Your task to perform on an android device: turn on bluetooth scan Image 0: 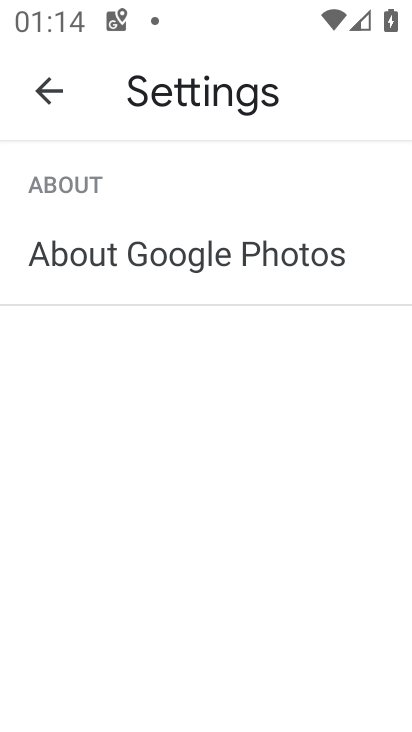
Step 0: press home button
Your task to perform on an android device: turn on bluetooth scan Image 1: 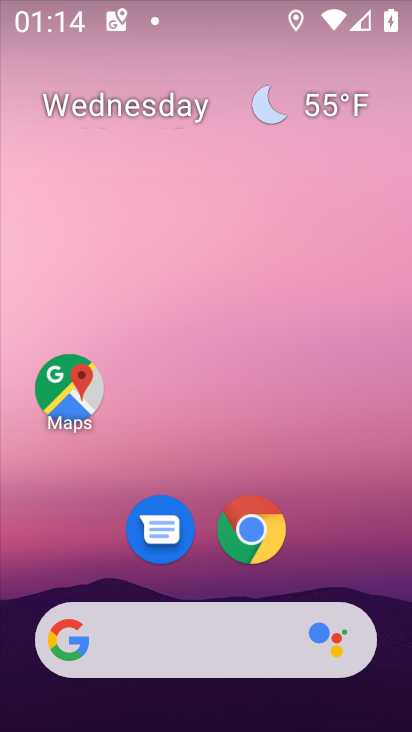
Step 1: drag from (218, 725) to (227, 214)
Your task to perform on an android device: turn on bluetooth scan Image 2: 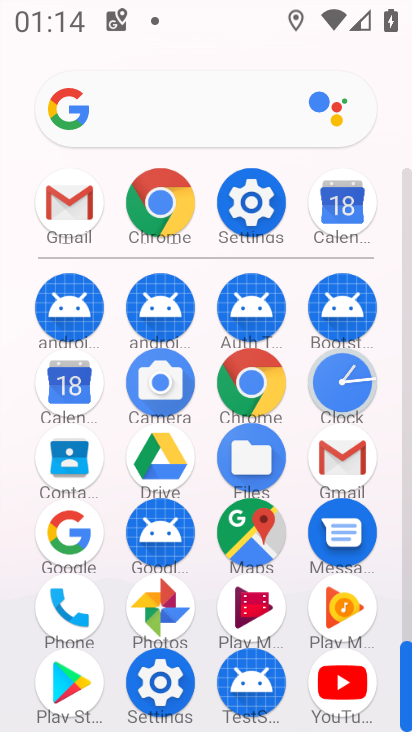
Step 2: click (265, 210)
Your task to perform on an android device: turn on bluetooth scan Image 3: 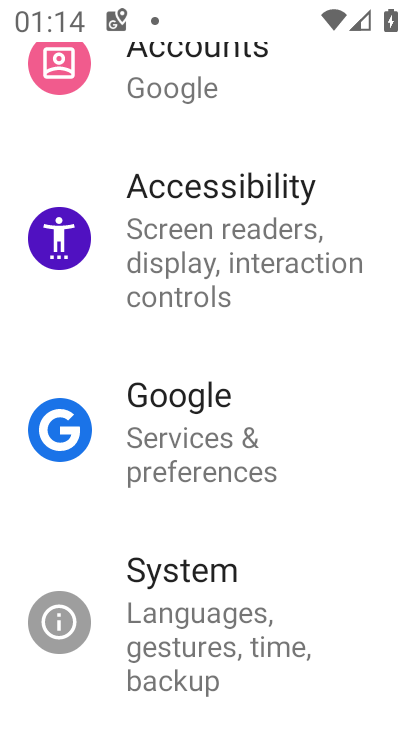
Step 3: drag from (165, 160) to (209, 629)
Your task to perform on an android device: turn on bluetooth scan Image 4: 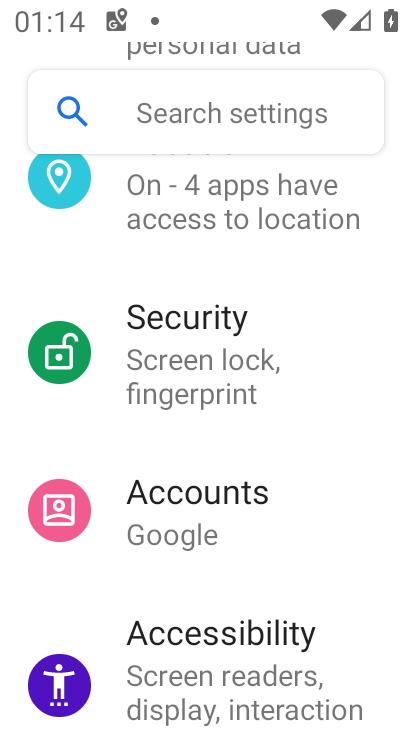
Step 4: drag from (266, 181) to (263, 472)
Your task to perform on an android device: turn on bluetooth scan Image 5: 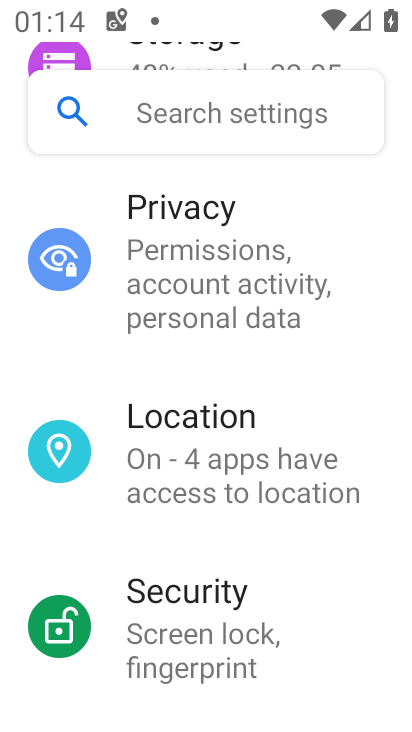
Step 5: click (203, 471)
Your task to perform on an android device: turn on bluetooth scan Image 6: 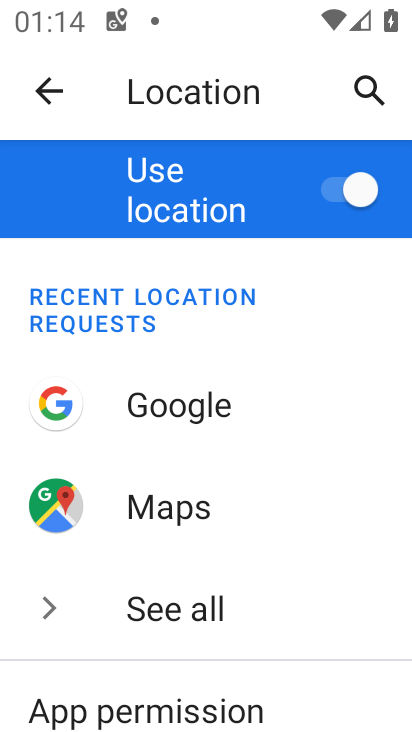
Step 6: drag from (191, 513) to (191, 304)
Your task to perform on an android device: turn on bluetooth scan Image 7: 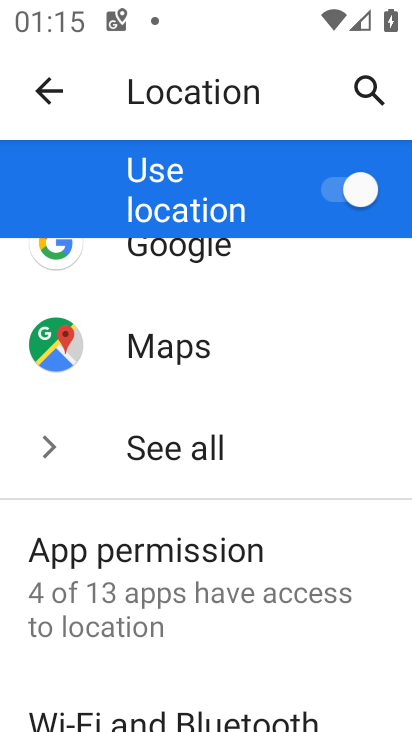
Step 7: drag from (218, 669) to (228, 354)
Your task to perform on an android device: turn on bluetooth scan Image 8: 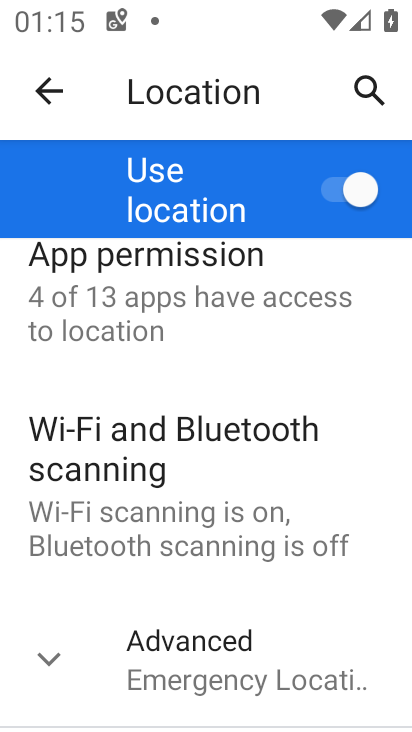
Step 8: click (127, 474)
Your task to perform on an android device: turn on bluetooth scan Image 9: 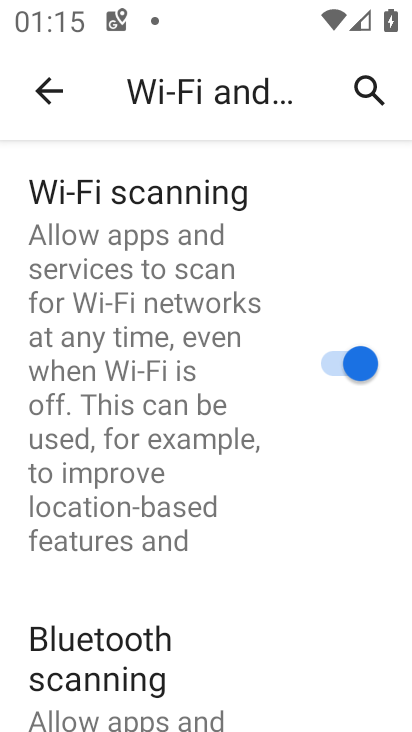
Step 9: drag from (254, 666) to (279, 306)
Your task to perform on an android device: turn on bluetooth scan Image 10: 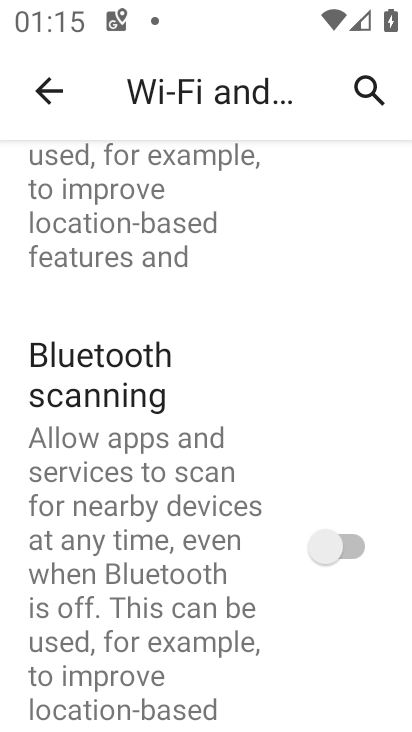
Step 10: click (349, 551)
Your task to perform on an android device: turn on bluetooth scan Image 11: 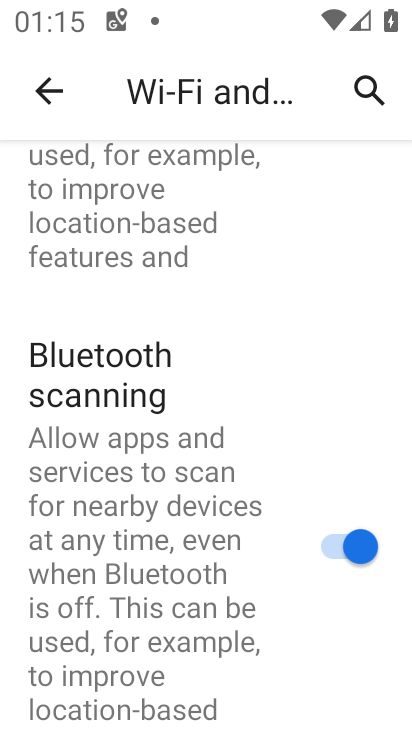
Step 11: task complete